Your task to perform on an android device: Open privacy settings Image 0: 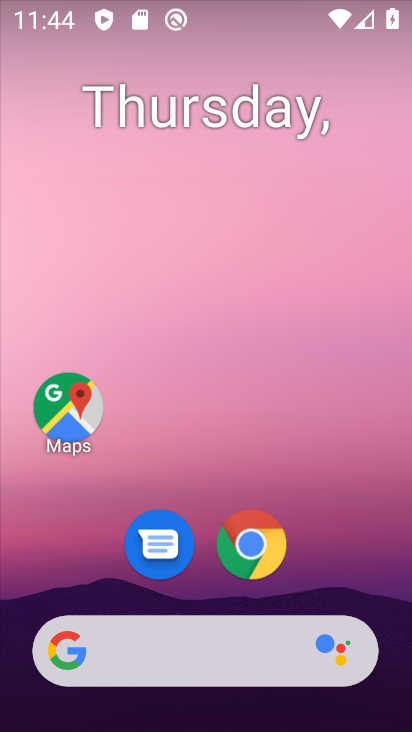
Step 0: drag from (215, 609) to (327, 13)
Your task to perform on an android device: Open privacy settings Image 1: 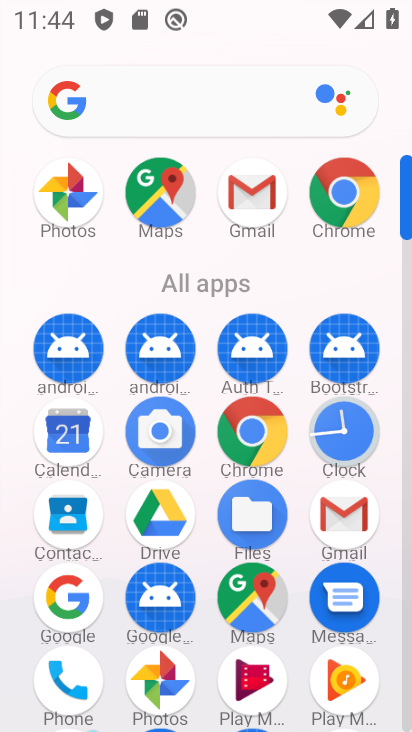
Step 1: drag from (205, 567) to (206, 99)
Your task to perform on an android device: Open privacy settings Image 2: 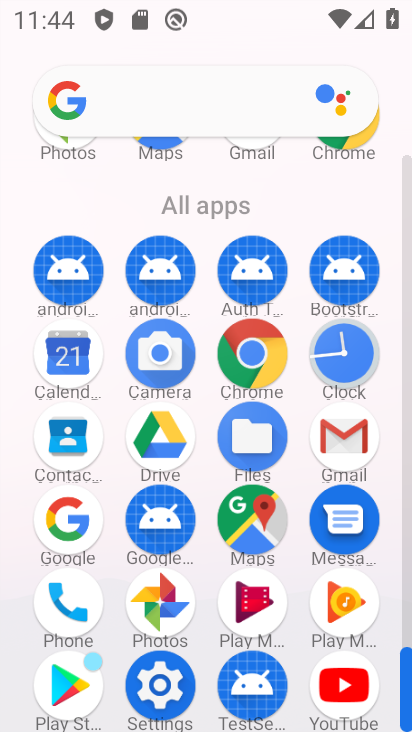
Step 2: click (164, 674)
Your task to perform on an android device: Open privacy settings Image 3: 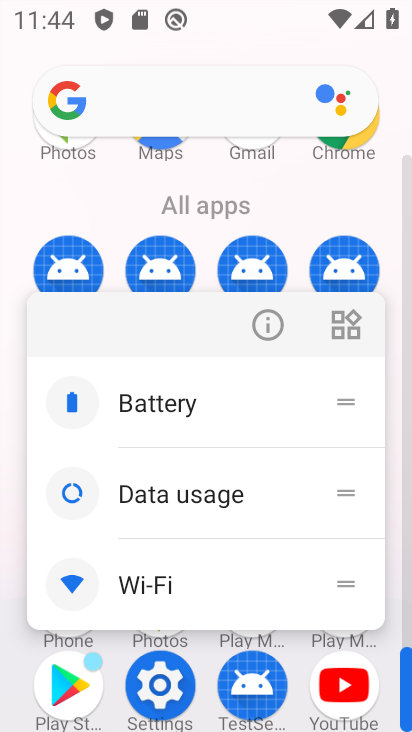
Step 3: click (146, 697)
Your task to perform on an android device: Open privacy settings Image 4: 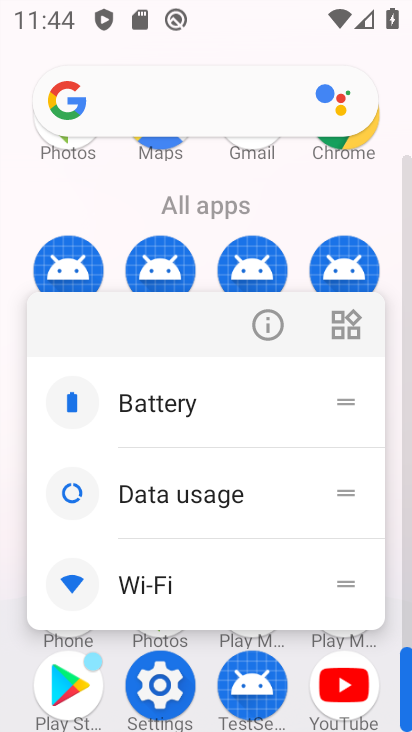
Step 4: click (152, 696)
Your task to perform on an android device: Open privacy settings Image 5: 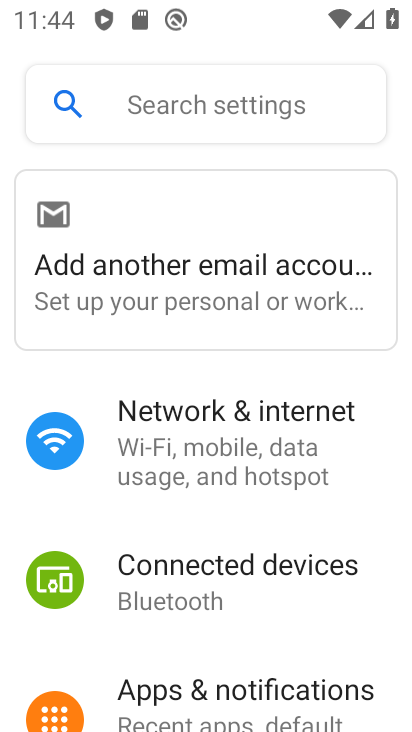
Step 5: drag from (269, 598) to (204, 89)
Your task to perform on an android device: Open privacy settings Image 6: 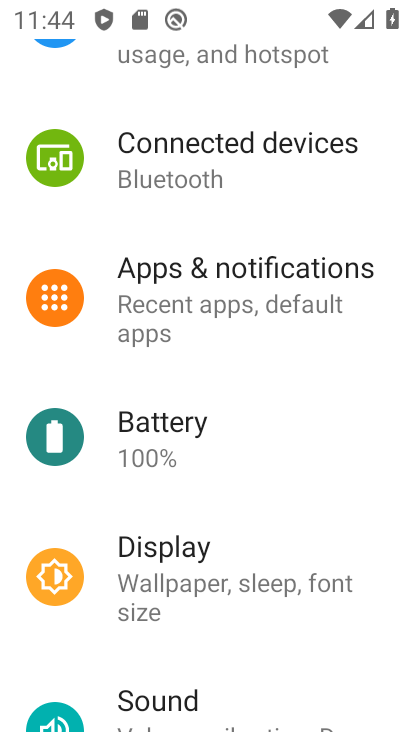
Step 6: drag from (257, 638) to (214, 86)
Your task to perform on an android device: Open privacy settings Image 7: 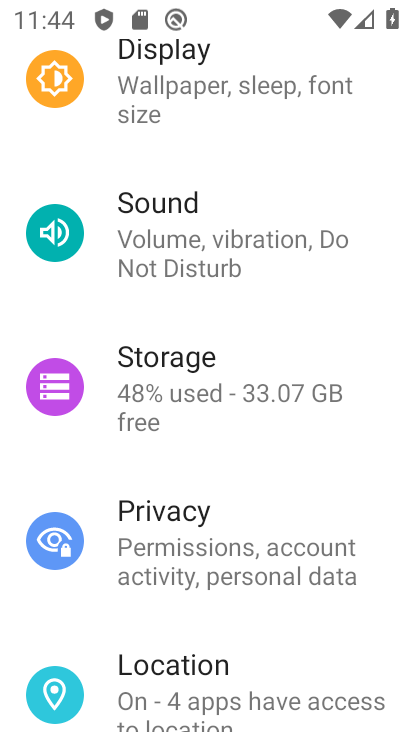
Step 7: click (194, 572)
Your task to perform on an android device: Open privacy settings Image 8: 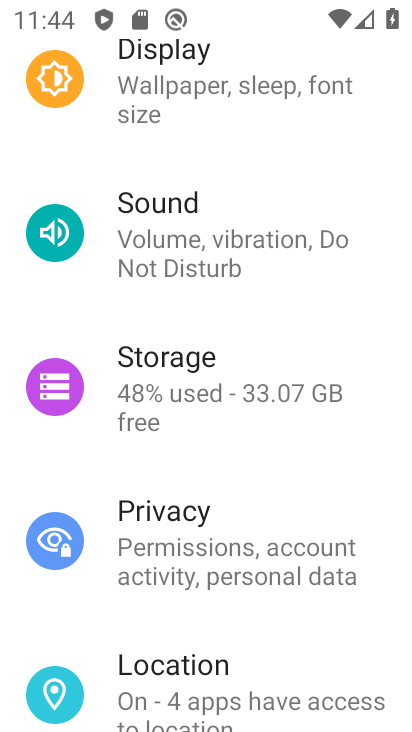
Step 8: task complete